Your task to perform on an android device: Open Youtube and go to "Your channel" Image 0: 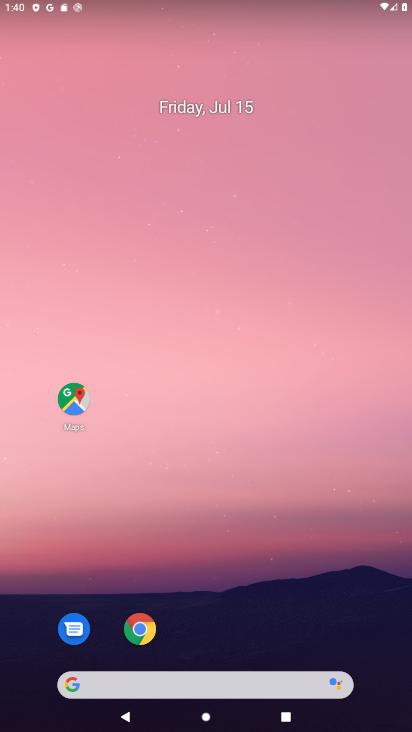
Step 0: drag from (187, 627) to (262, 210)
Your task to perform on an android device: Open Youtube and go to "Your channel" Image 1: 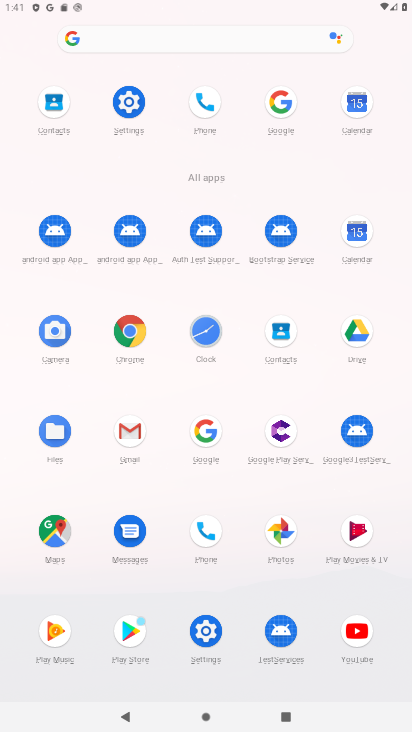
Step 1: click (358, 646)
Your task to perform on an android device: Open Youtube and go to "Your channel" Image 2: 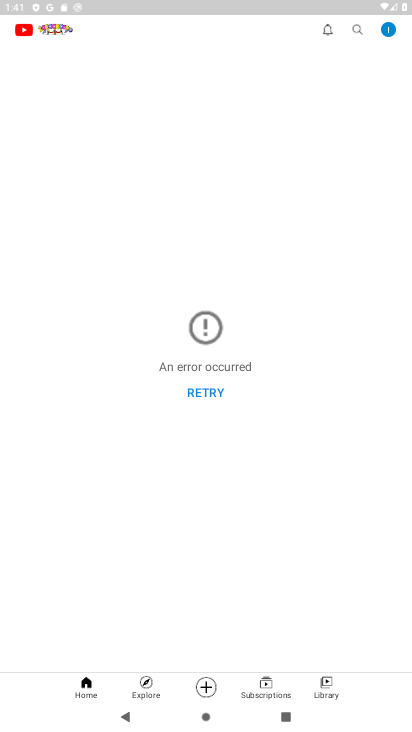
Step 2: click (382, 37)
Your task to perform on an android device: Open Youtube and go to "Your channel" Image 3: 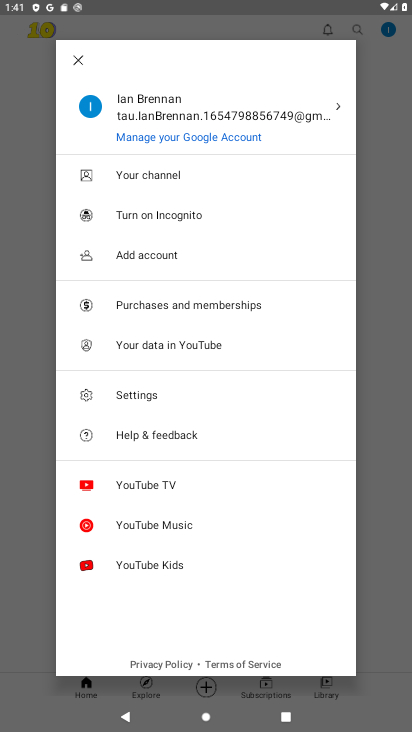
Step 3: click (163, 181)
Your task to perform on an android device: Open Youtube and go to "Your channel" Image 4: 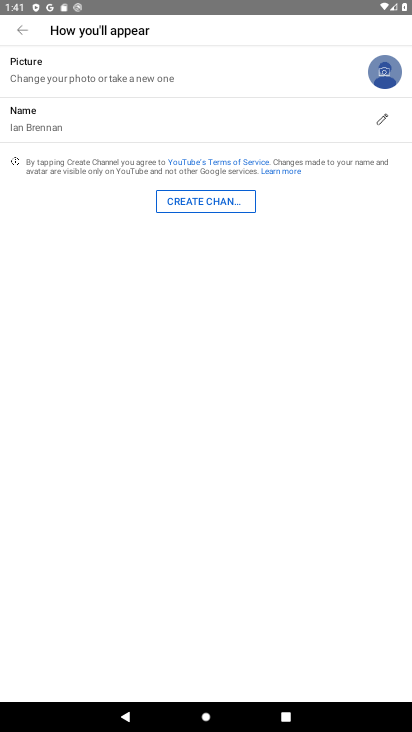
Step 4: task complete